Your task to perform on an android device: Go to Google Image 0: 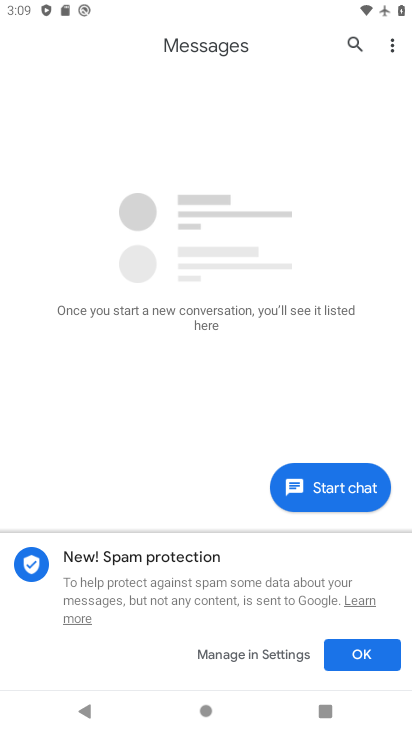
Step 0: press home button
Your task to perform on an android device: Go to Google Image 1: 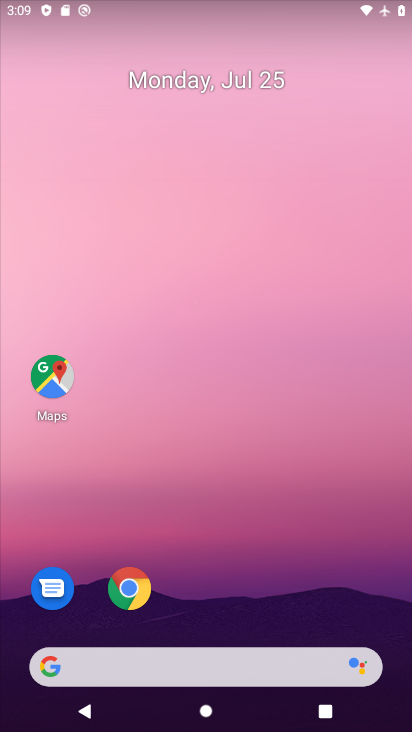
Step 1: drag from (236, 691) to (232, 139)
Your task to perform on an android device: Go to Google Image 2: 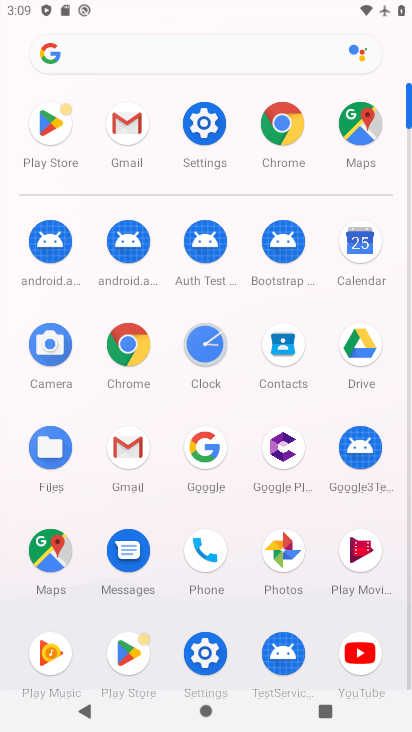
Step 2: click (211, 442)
Your task to perform on an android device: Go to Google Image 3: 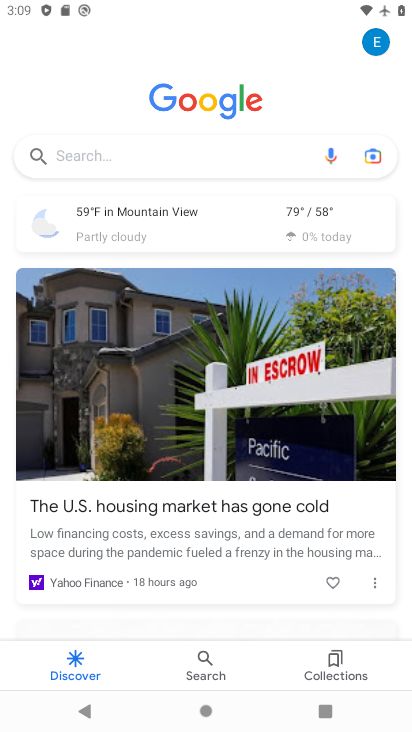
Step 3: task complete